Your task to perform on an android device: Play the last video I watched on Youtube Image 0: 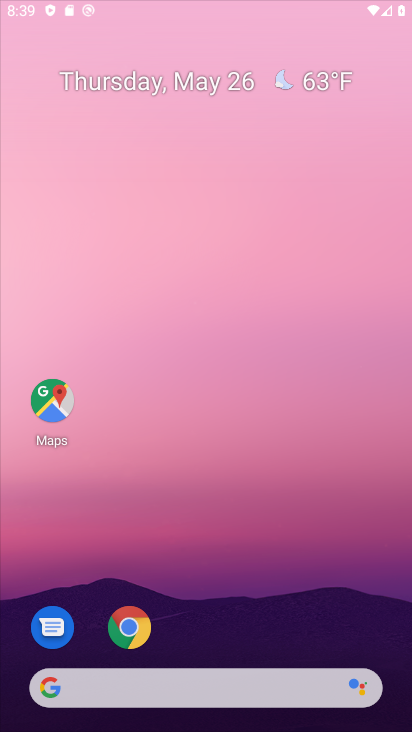
Step 0: press back button
Your task to perform on an android device: Play the last video I watched on Youtube Image 1: 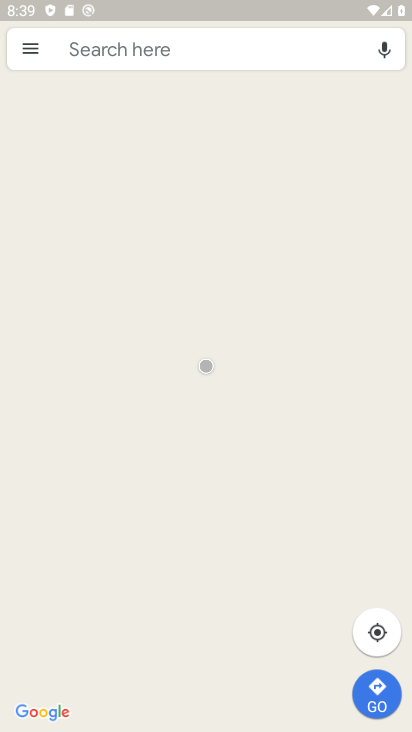
Step 1: drag from (225, 670) to (198, 176)
Your task to perform on an android device: Play the last video I watched on Youtube Image 2: 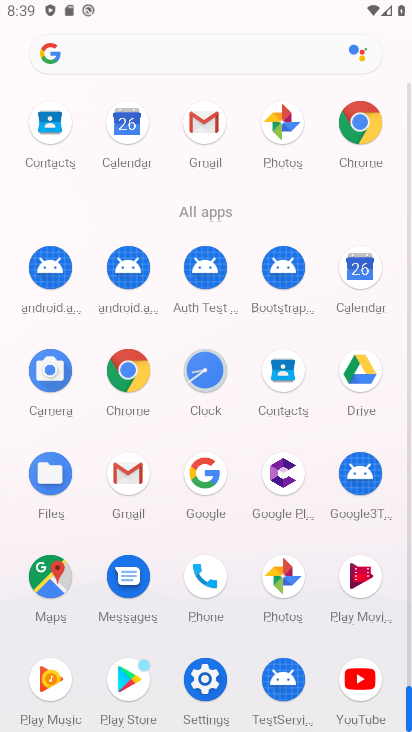
Step 2: click (351, 684)
Your task to perform on an android device: Play the last video I watched on Youtube Image 3: 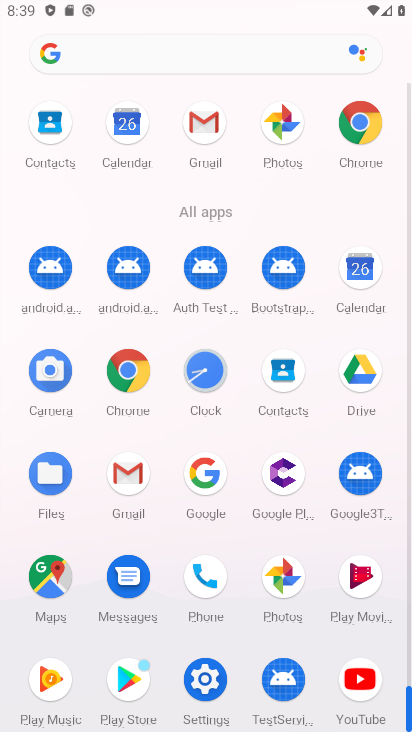
Step 3: click (351, 684)
Your task to perform on an android device: Play the last video I watched on Youtube Image 4: 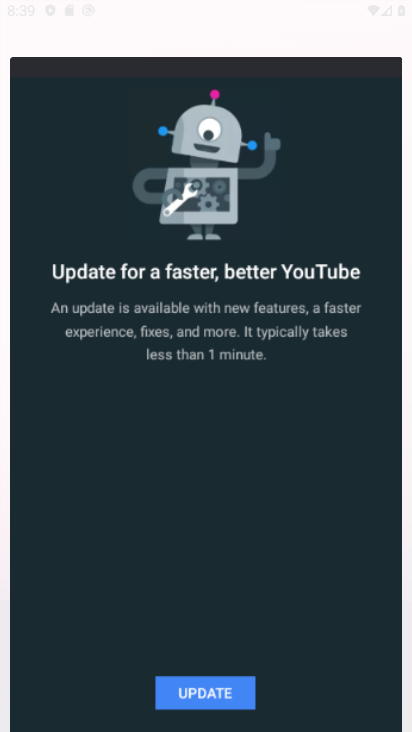
Step 4: click (350, 685)
Your task to perform on an android device: Play the last video I watched on Youtube Image 5: 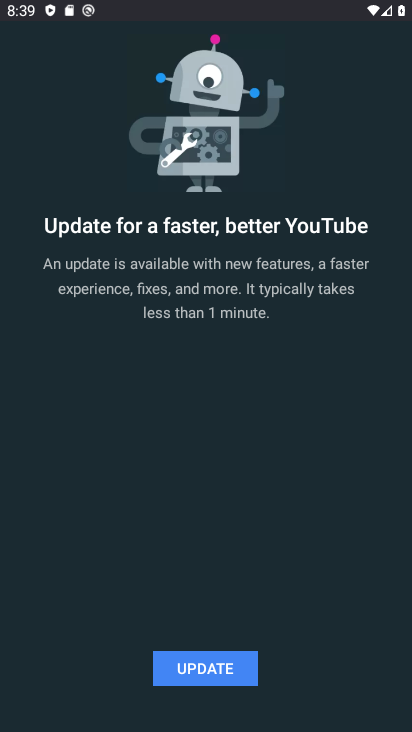
Step 5: click (205, 670)
Your task to perform on an android device: Play the last video I watched on Youtube Image 6: 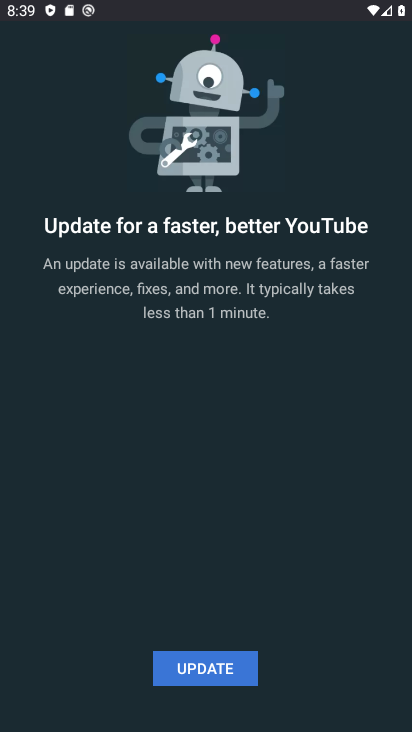
Step 6: click (195, 664)
Your task to perform on an android device: Play the last video I watched on Youtube Image 7: 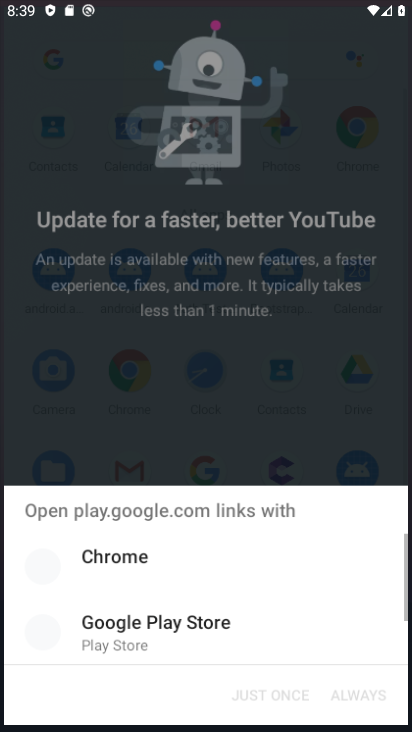
Step 7: click (197, 662)
Your task to perform on an android device: Play the last video I watched on Youtube Image 8: 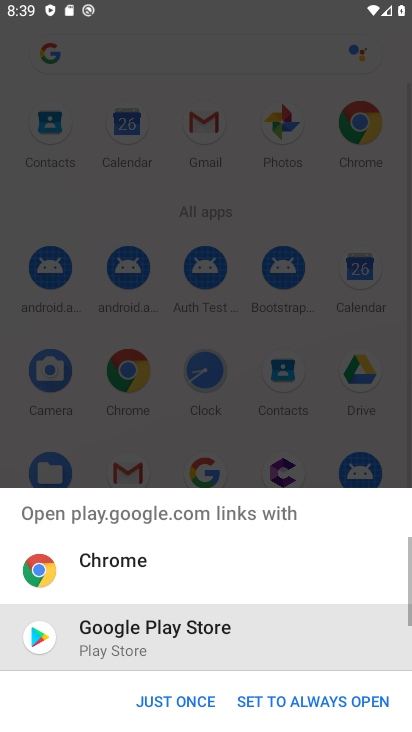
Step 8: click (126, 636)
Your task to perform on an android device: Play the last video I watched on Youtube Image 9: 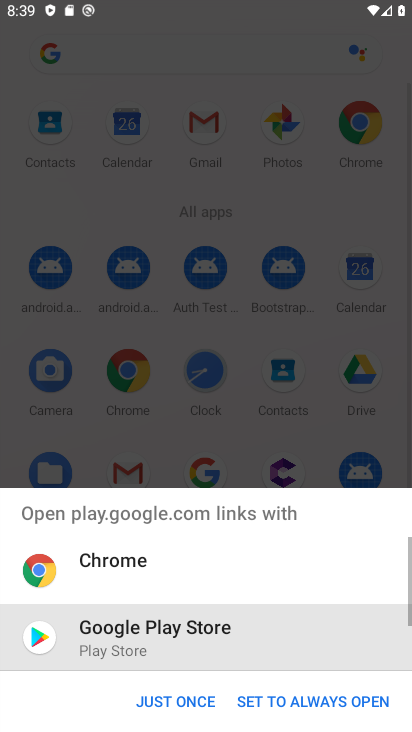
Step 9: click (124, 636)
Your task to perform on an android device: Play the last video I watched on Youtube Image 10: 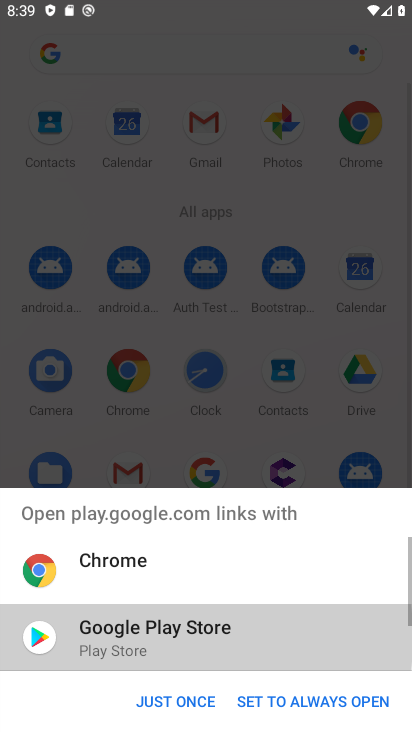
Step 10: click (124, 636)
Your task to perform on an android device: Play the last video I watched on Youtube Image 11: 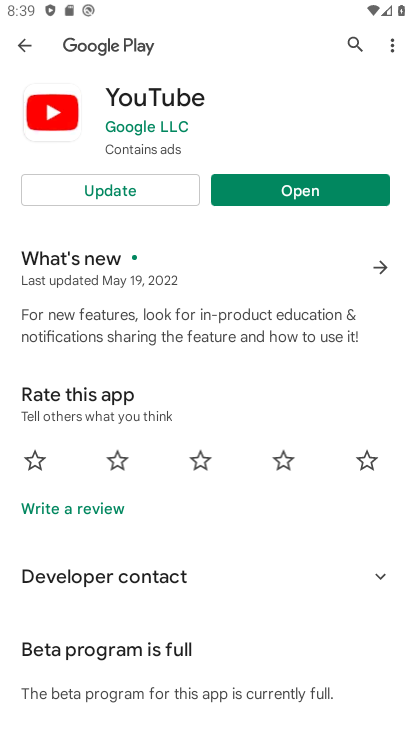
Step 11: click (122, 191)
Your task to perform on an android device: Play the last video I watched on Youtube Image 12: 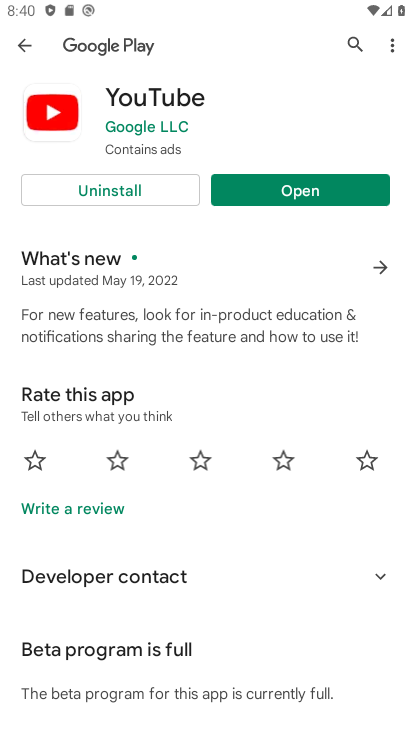
Step 12: click (282, 192)
Your task to perform on an android device: Play the last video I watched on Youtube Image 13: 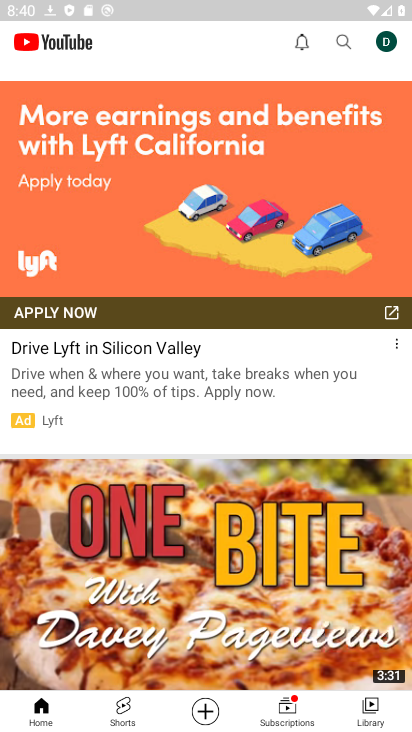
Step 13: task complete